Your task to perform on an android device: open app "Facebook Messenger" (install if not already installed) Image 0: 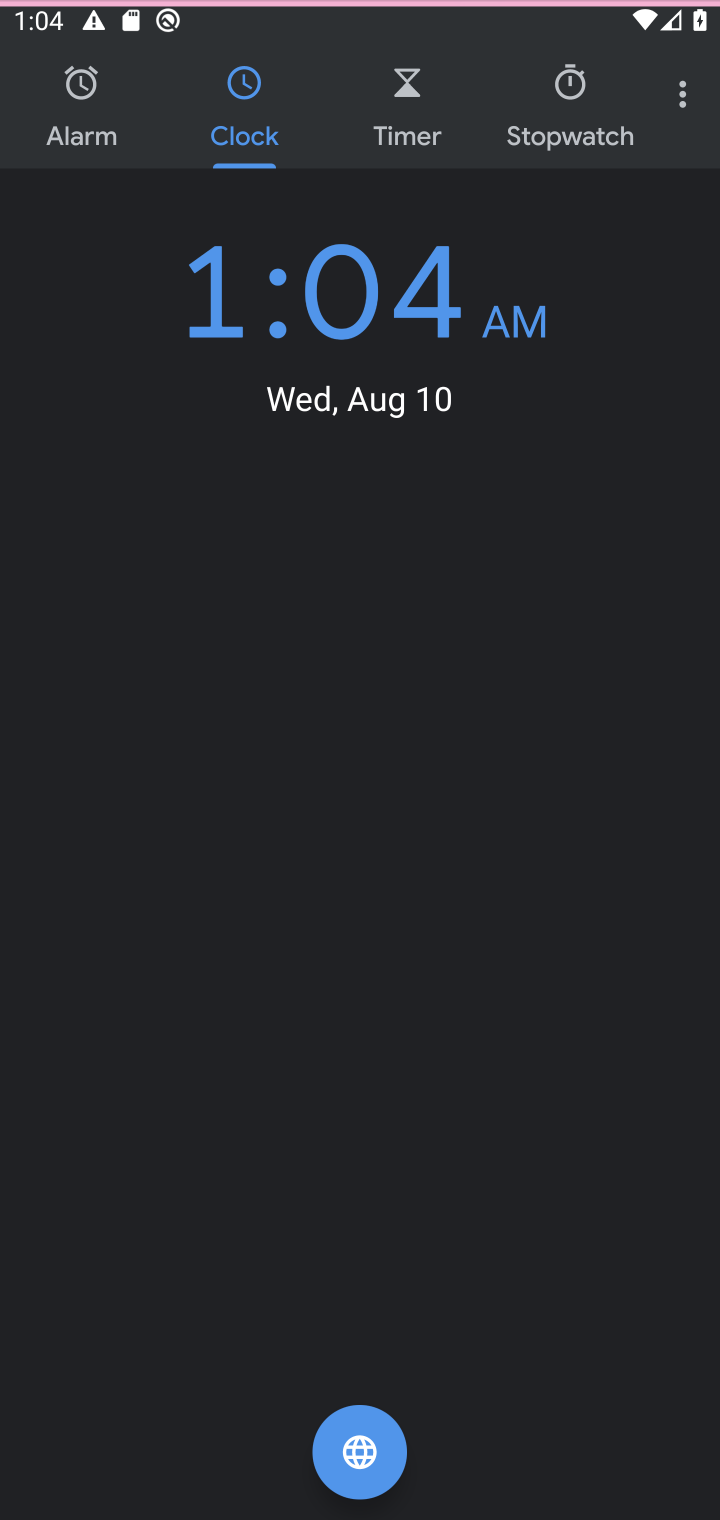
Step 0: press home button
Your task to perform on an android device: open app "Facebook Messenger" (install if not already installed) Image 1: 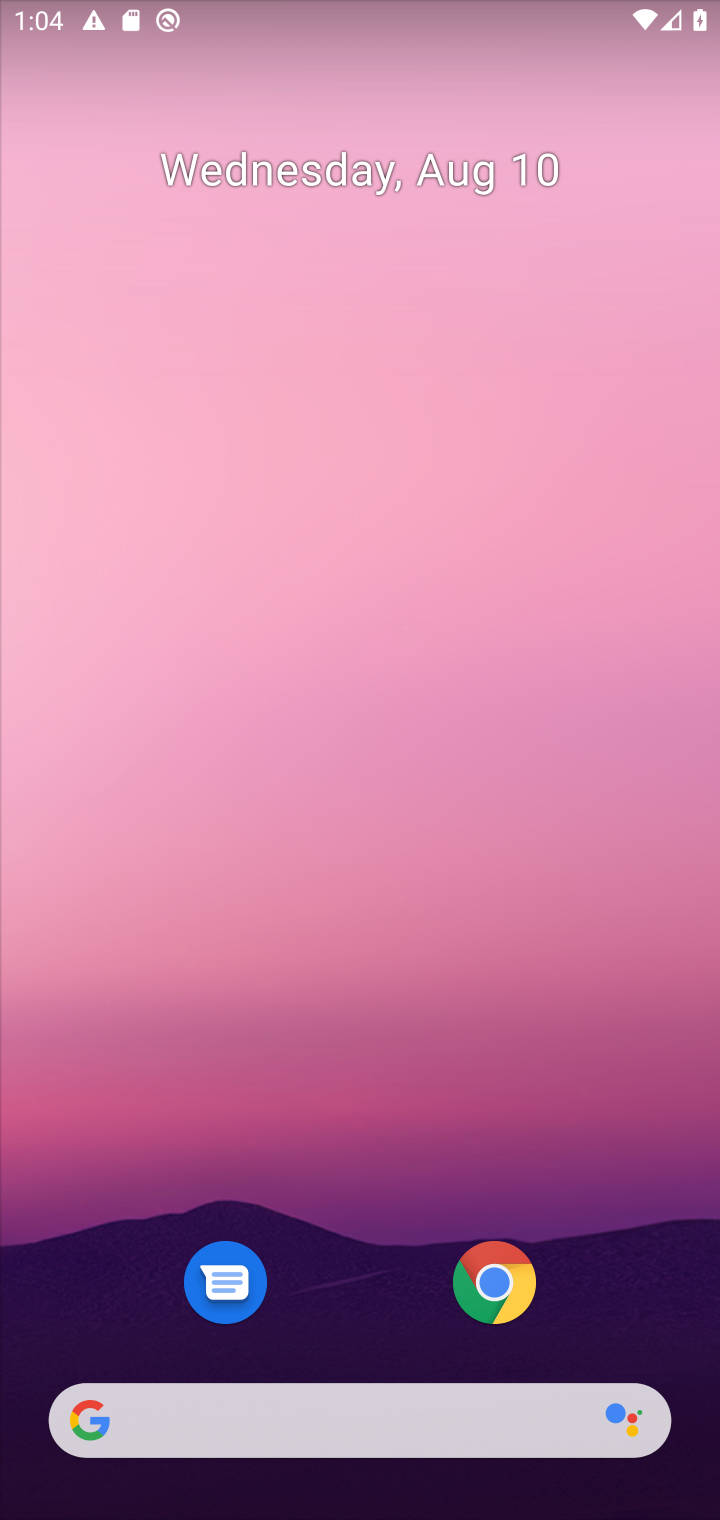
Step 1: drag from (313, 1352) to (155, 93)
Your task to perform on an android device: open app "Facebook Messenger" (install if not already installed) Image 2: 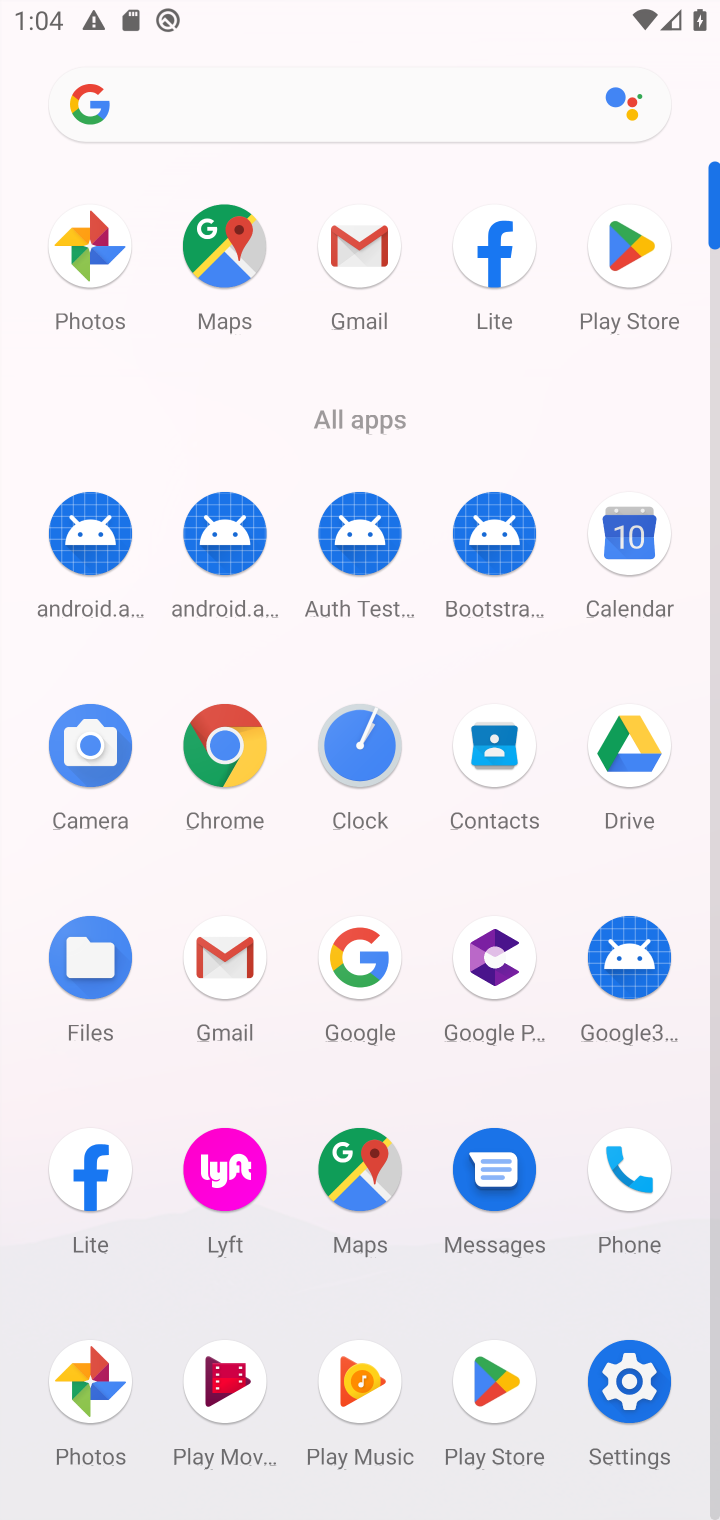
Step 2: click (471, 1402)
Your task to perform on an android device: open app "Facebook Messenger" (install if not already installed) Image 3: 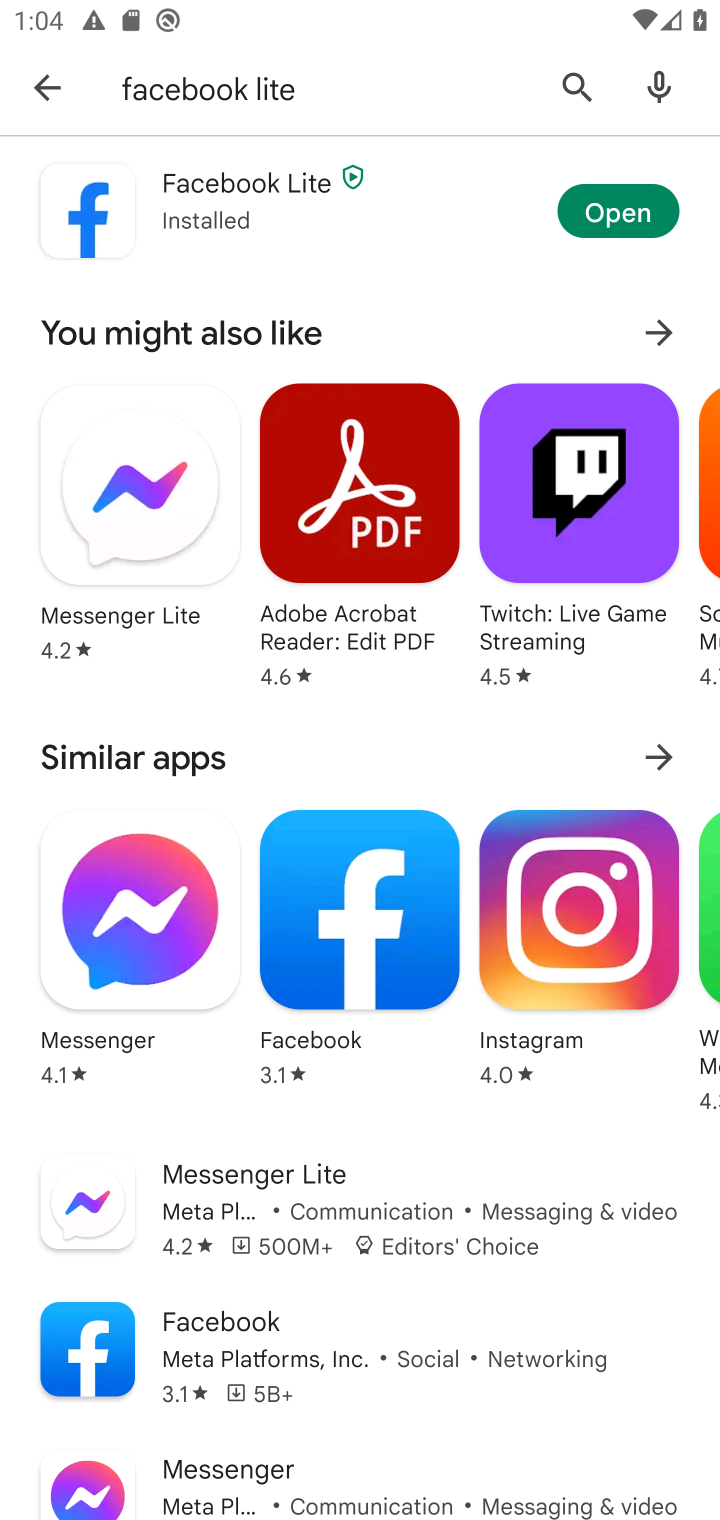
Step 3: click (115, 103)
Your task to perform on an android device: open app "Facebook Messenger" (install if not already installed) Image 4: 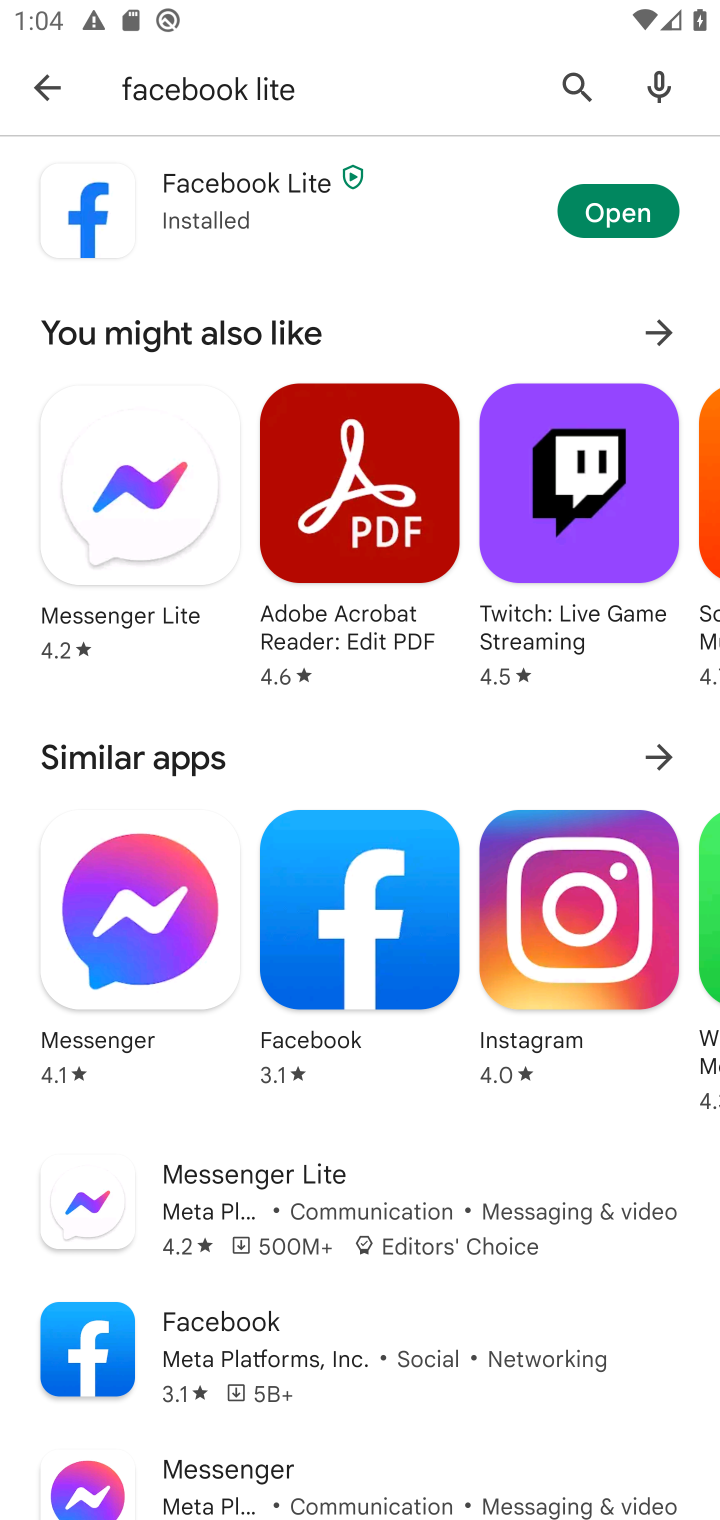
Step 4: click (42, 93)
Your task to perform on an android device: open app "Facebook Messenger" (install if not already installed) Image 5: 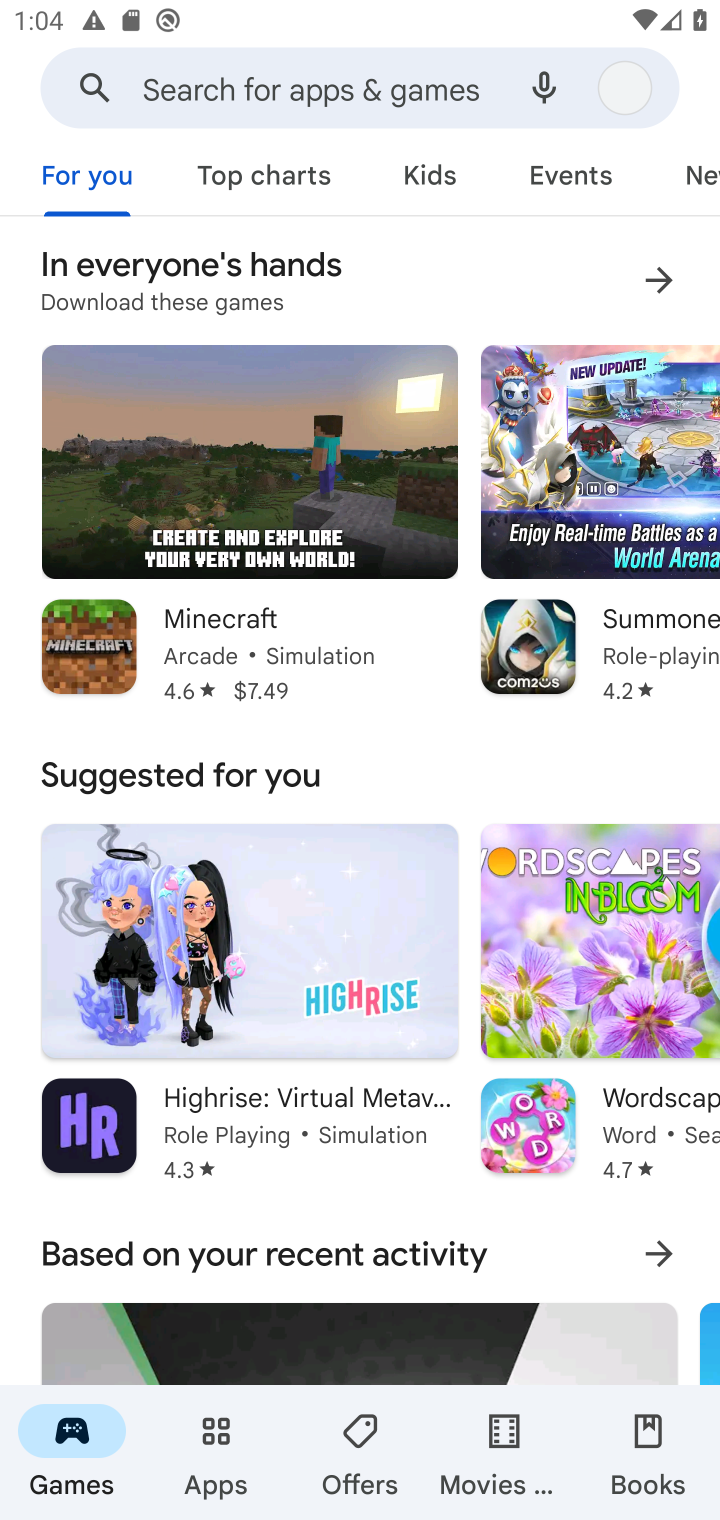
Step 5: click (141, 117)
Your task to perform on an android device: open app "Facebook Messenger" (install if not already installed) Image 6: 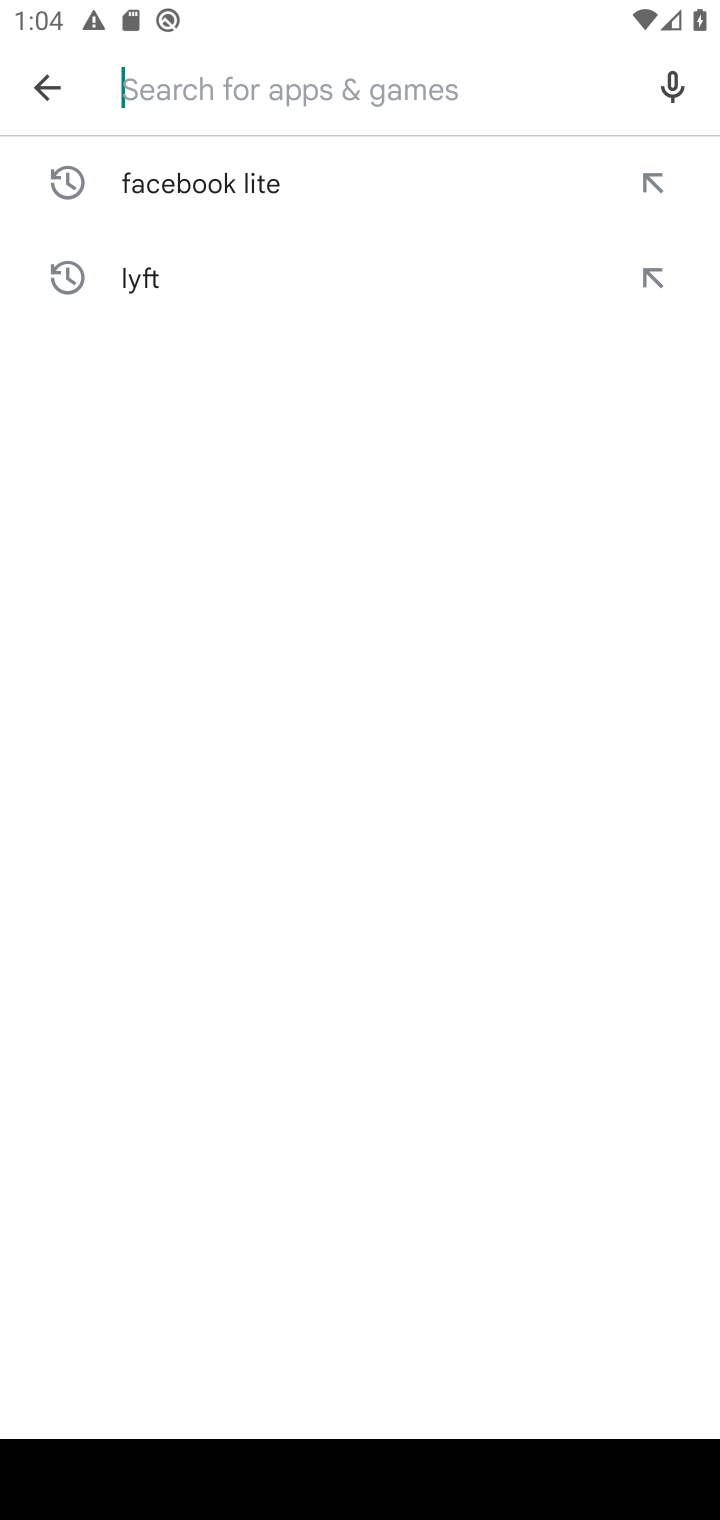
Step 6: type ""Facebook Messenge"
Your task to perform on an android device: open app "Facebook Messenger" (install if not already installed) Image 7: 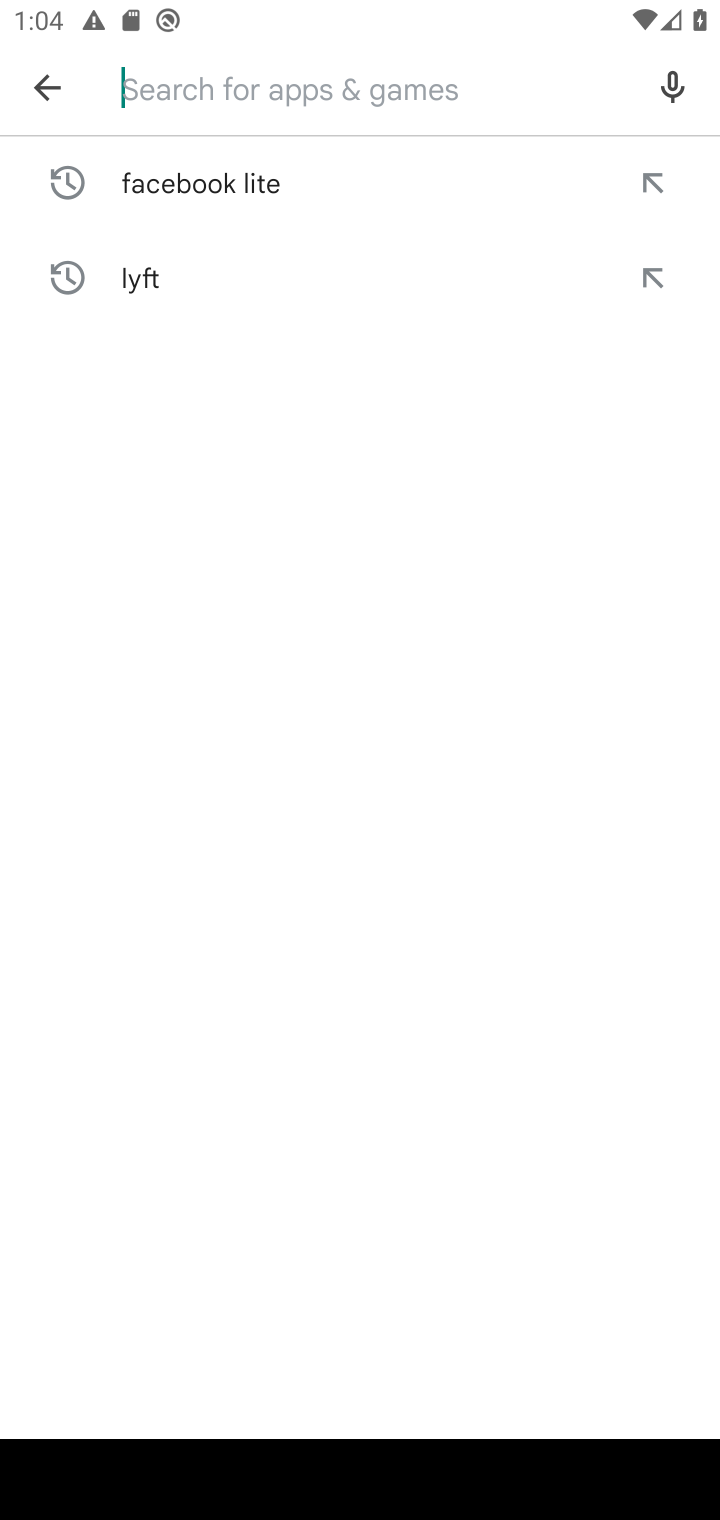
Step 7: type "Facebook Messenger"
Your task to perform on an android device: open app "Facebook Messenger" (install if not already installed) Image 8: 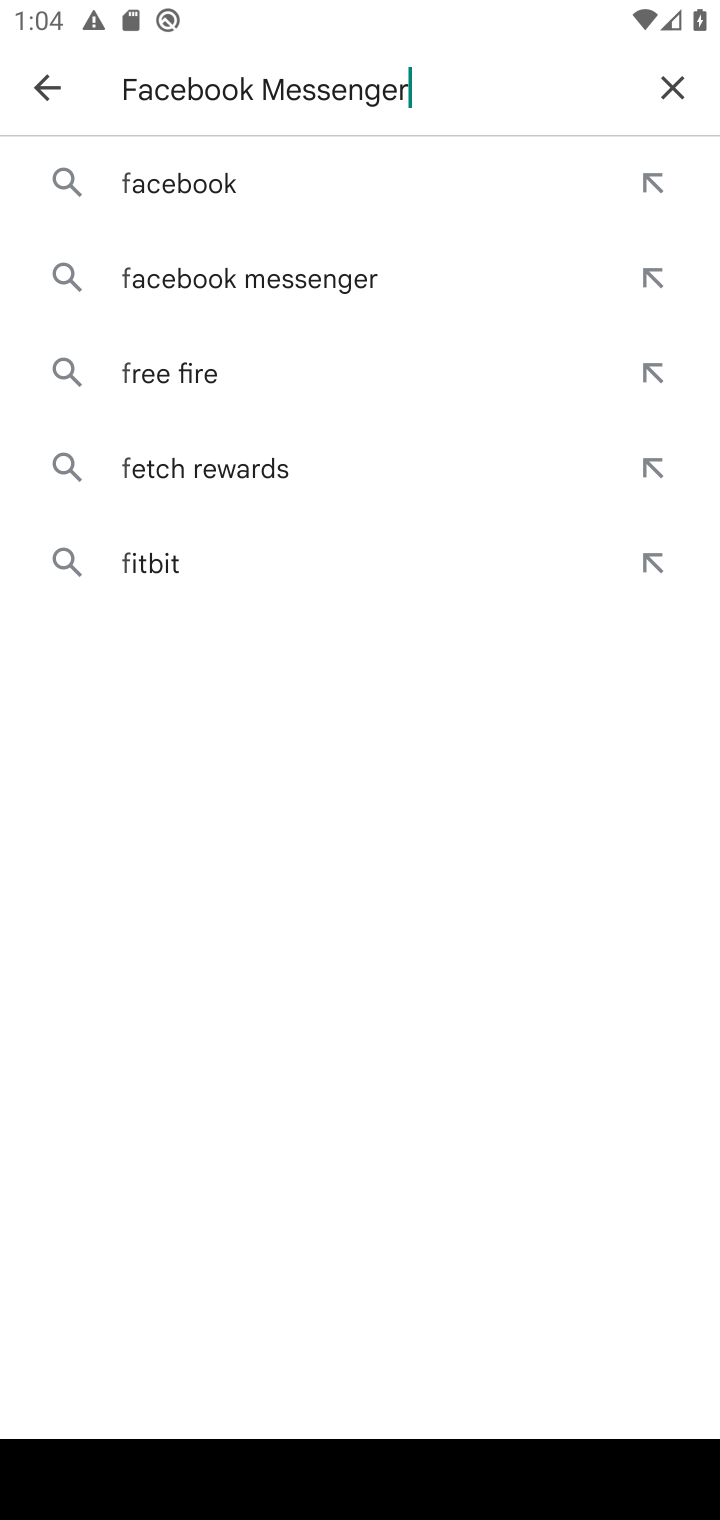
Step 8: type ""
Your task to perform on an android device: open app "Facebook Messenger" (install if not already installed) Image 9: 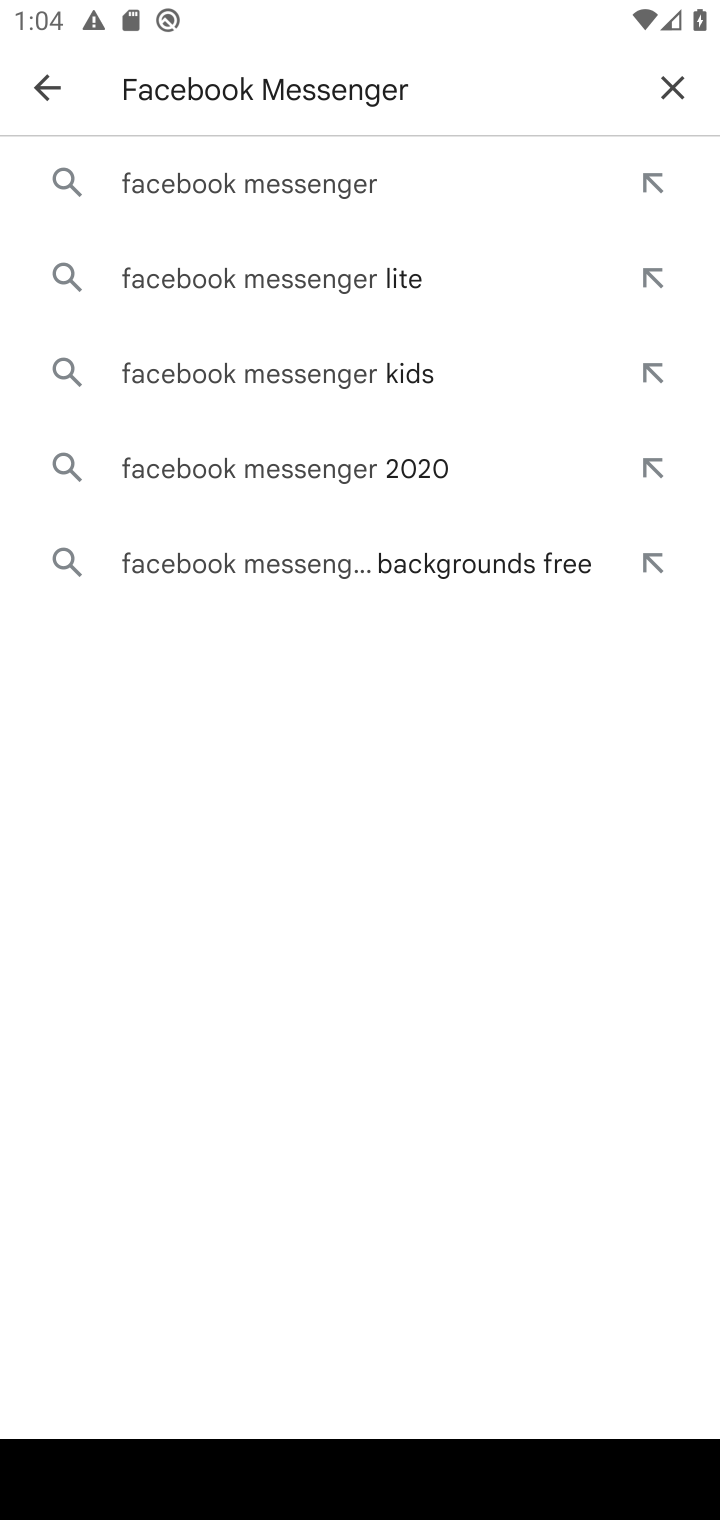
Step 9: click (206, 185)
Your task to perform on an android device: open app "Facebook Messenger" (install if not already installed) Image 10: 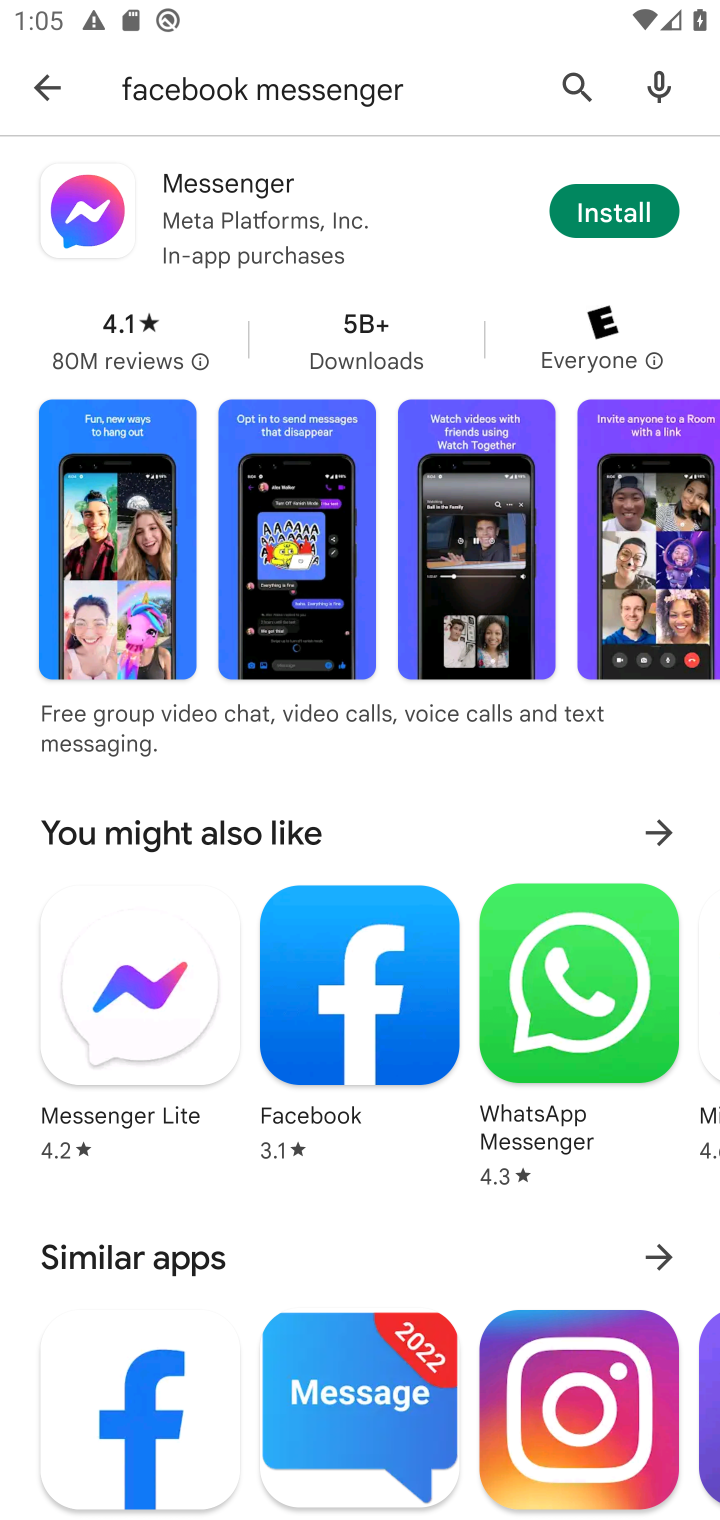
Step 10: click (614, 227)
Your task to perform on an android device: open app "Facebook Messenger" (install if not already installed) Image 11: 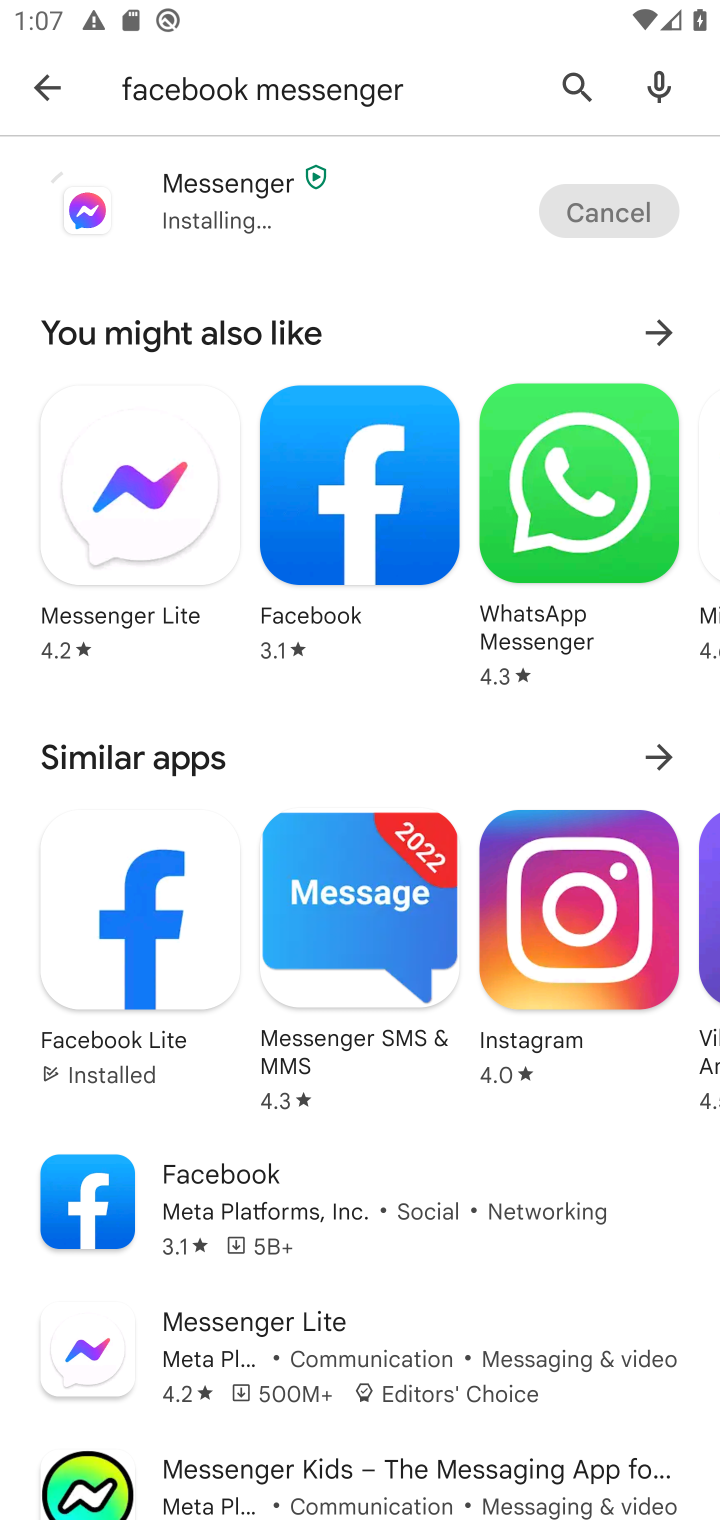
Step 11: click (137, 209)
Your task to perform on an android device: open app "Facebook Messenger" (install if not already installed) Image 12: 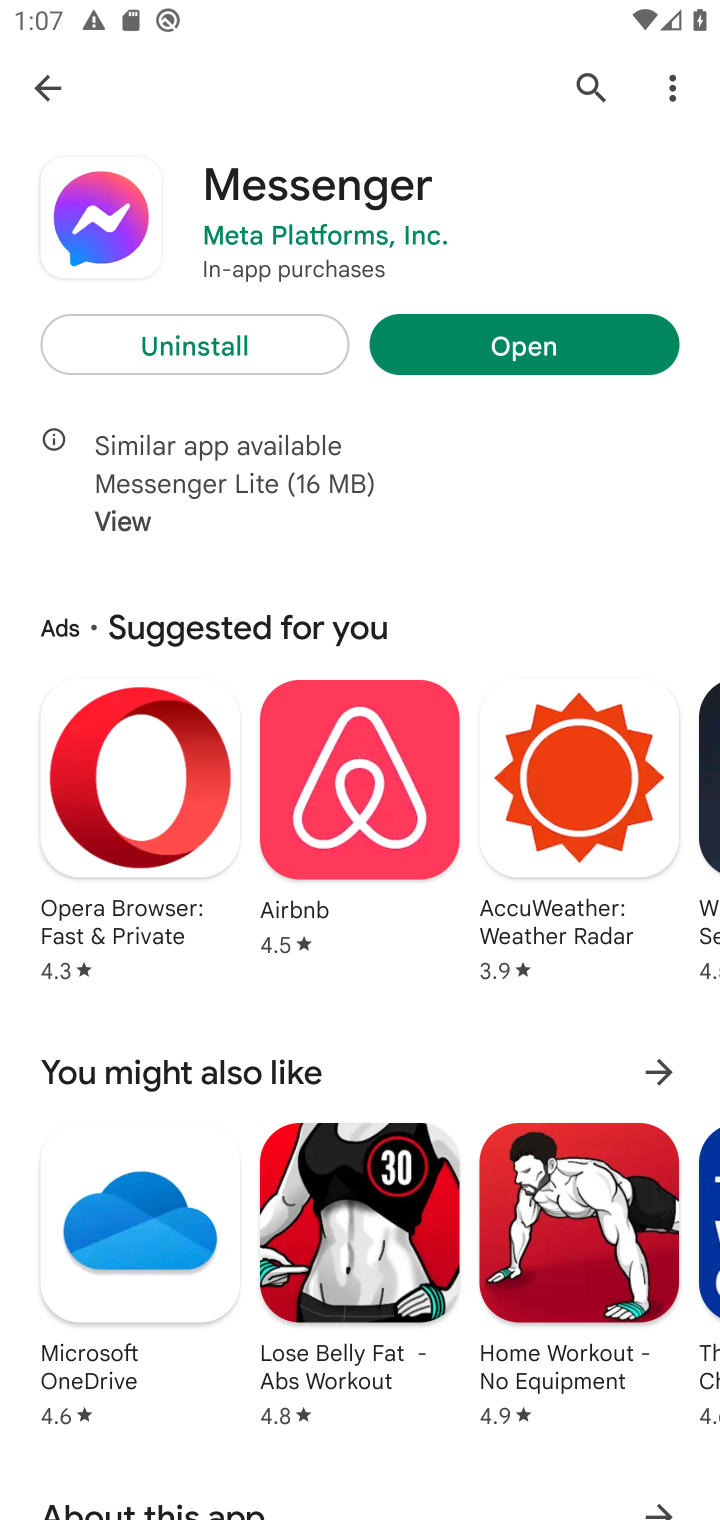
Step 12: click (485, 350)
Your task to perform on an android device: open app "Facebook Messenger" (install if not already installed) Image 13: 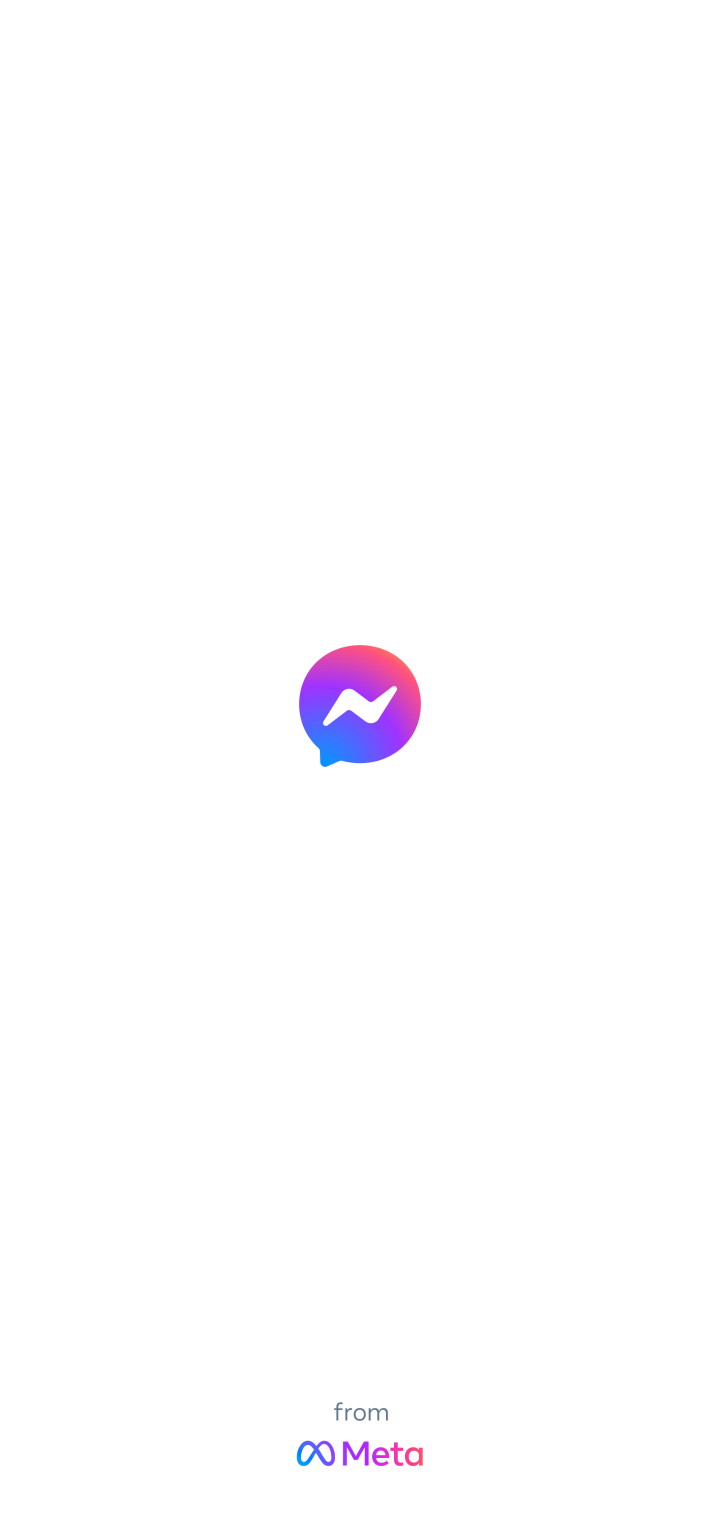
Step 13: task complete